Your task to perform on an android device: When is my next meeting? Image 0: 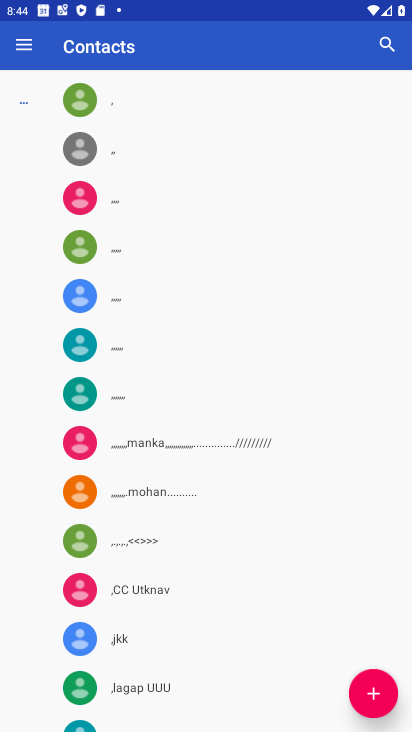
Step 0: press home button
Your task to perform on an android device: When is my next meeting? Image 1: 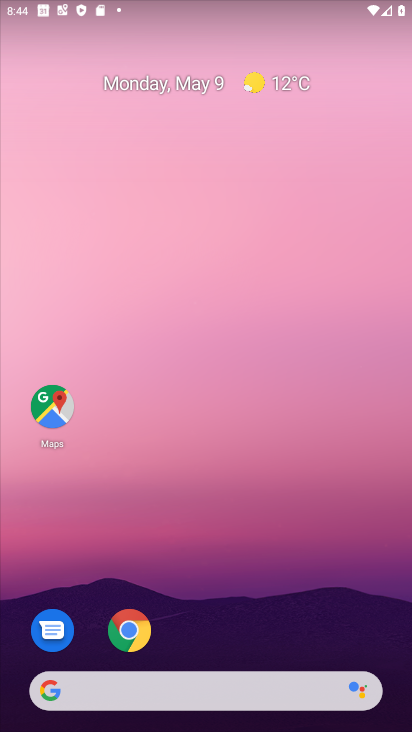
Step 1: drag from (129, 670) to (142, 284)
Your task to perform on an android device: When is my next meeting? Image 2: 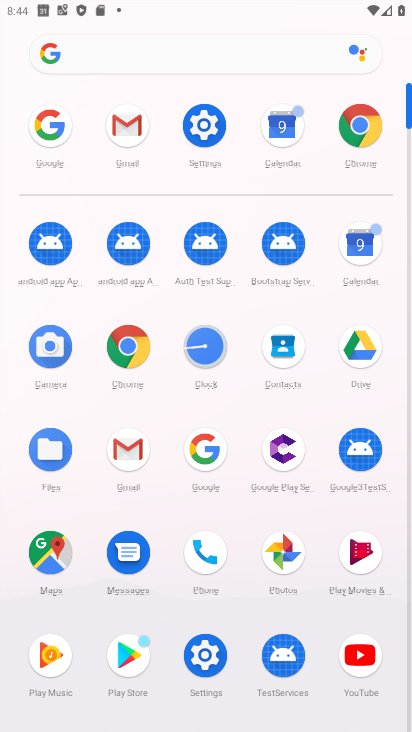
Step 2: click (367, 243)
Your task to perform on an android device: When is my next meeting? Image 3: 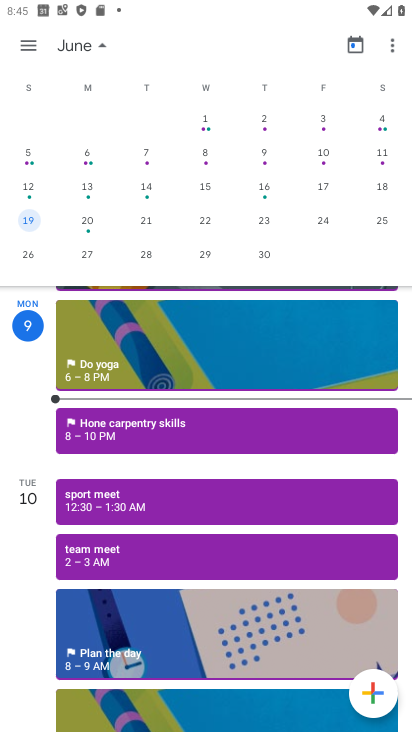
Step 3: task complete